Your task to perform on an android device: Go to battery settings Image 0: 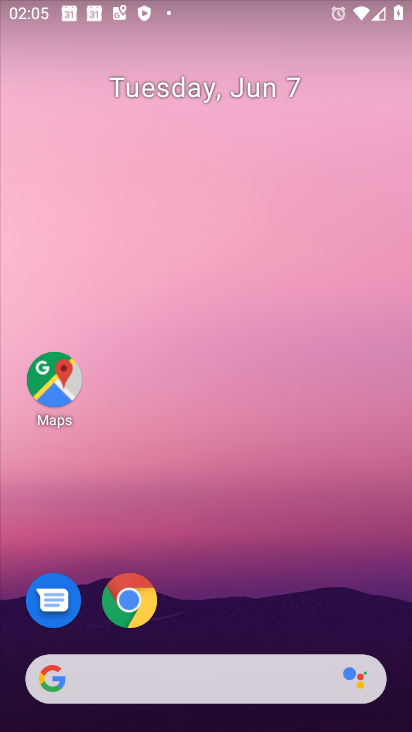
Step 0: drag from (237, 726) to (212, 140)
Your task to perform on an android device: Go to battery settings Image 1: 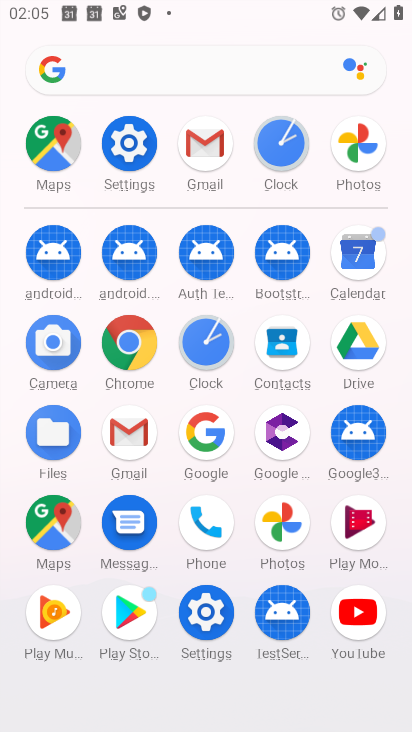
Step 1: click (131, 141)
Your task to perform on an android device: Go to battery settings Image 2: 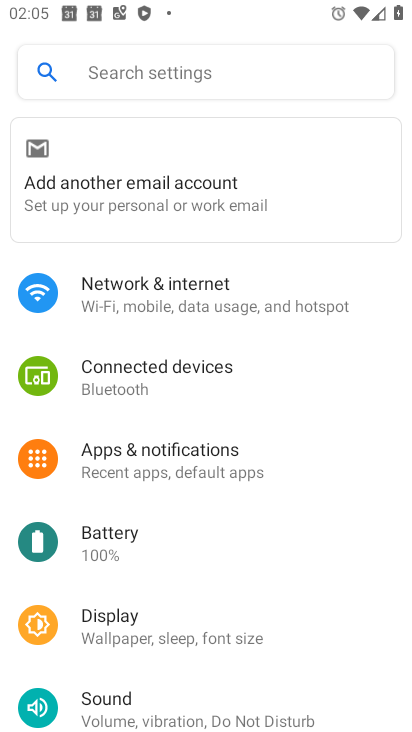
Step 2: click (106, 542)
Your task to perform on an android device: Go to battery settings Image 3: 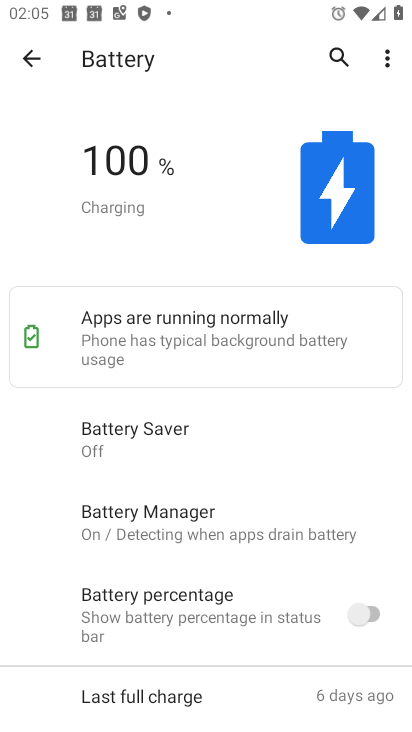
Step 3: task complete